Your task to perform on an android device: open app "Truecaller" Image 0: 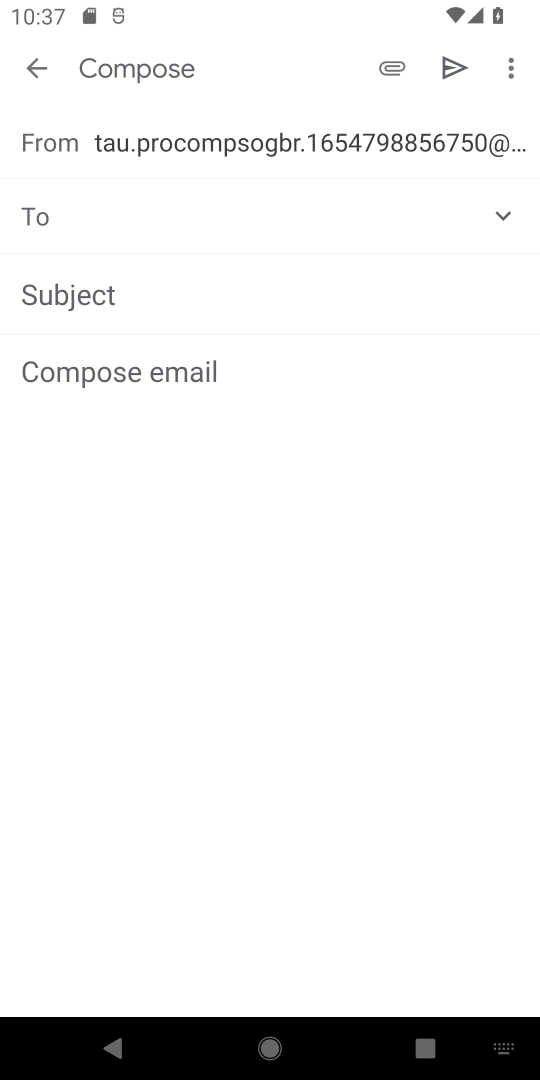
Step 0: press home button
Your task to perform on an android device: open app "Truecaller" Image 1: 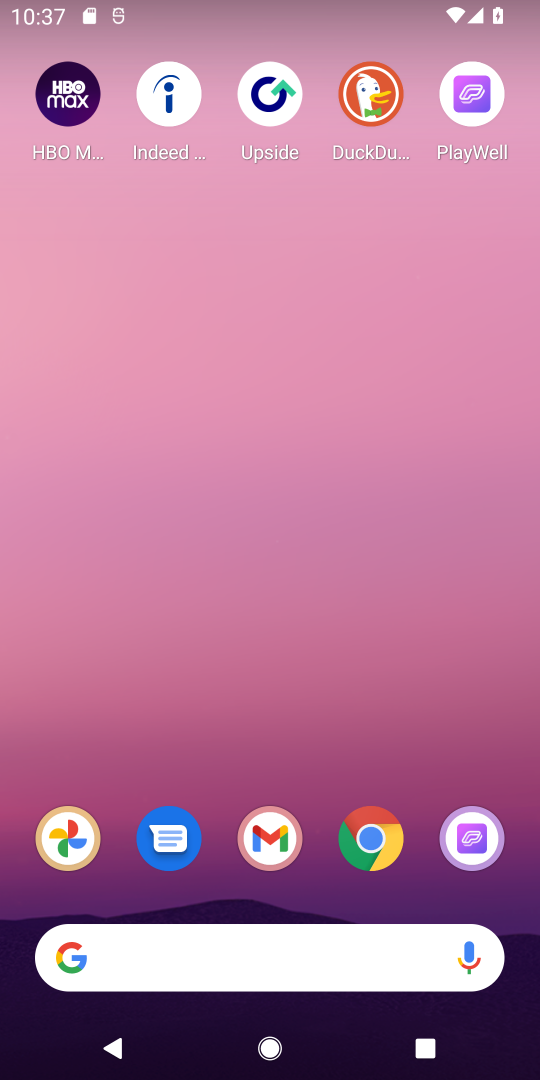
Step 1: press home button
Your task to perform on an android device: open app "Truecaller" Image 2: 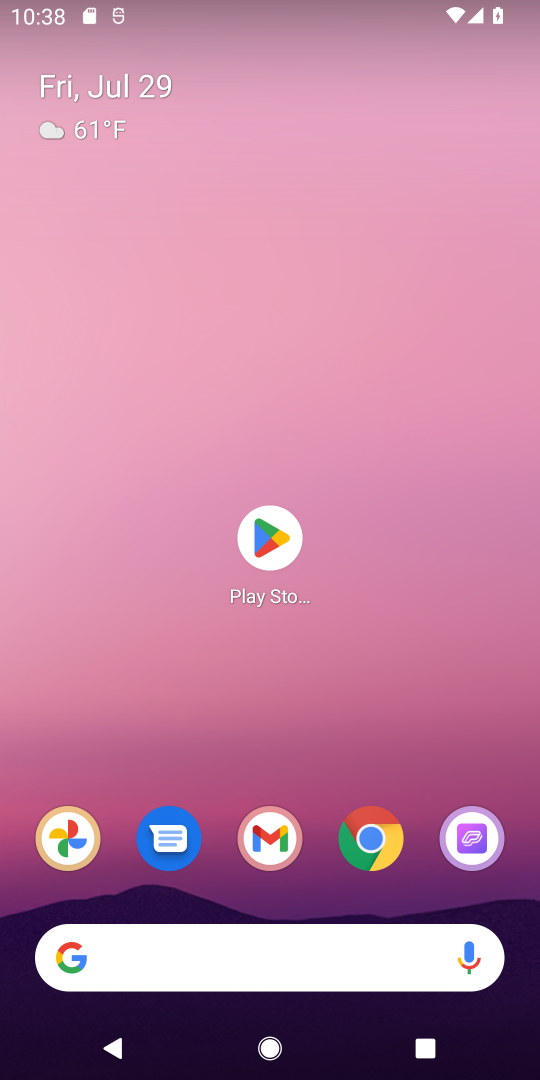
Step 2: click (262, 534)
Your task to perform on an android device: open app "Truecaller" Image 3: 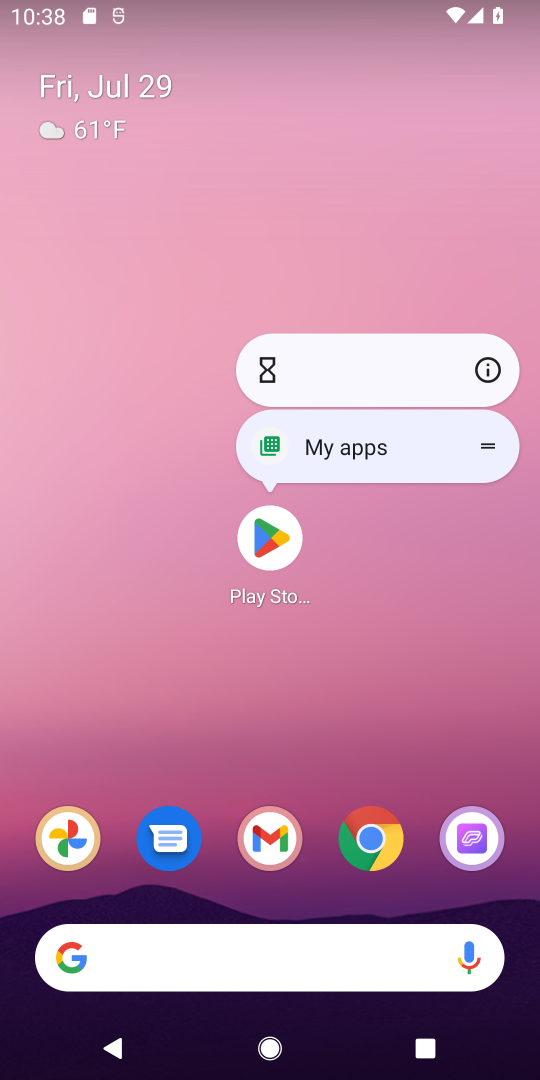
Step 3: click (270, 546)
Your task to perform on an android device: open app "Truecaller" Image 4: 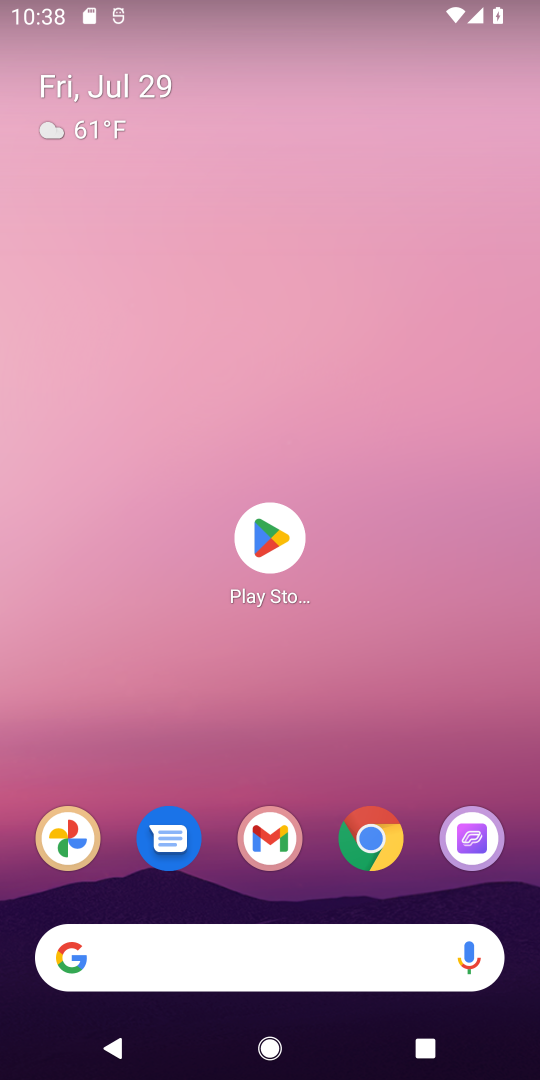
Step 4: click (270, 547)
Your task to perform on an android device: open app "Truecaller" Image 5: 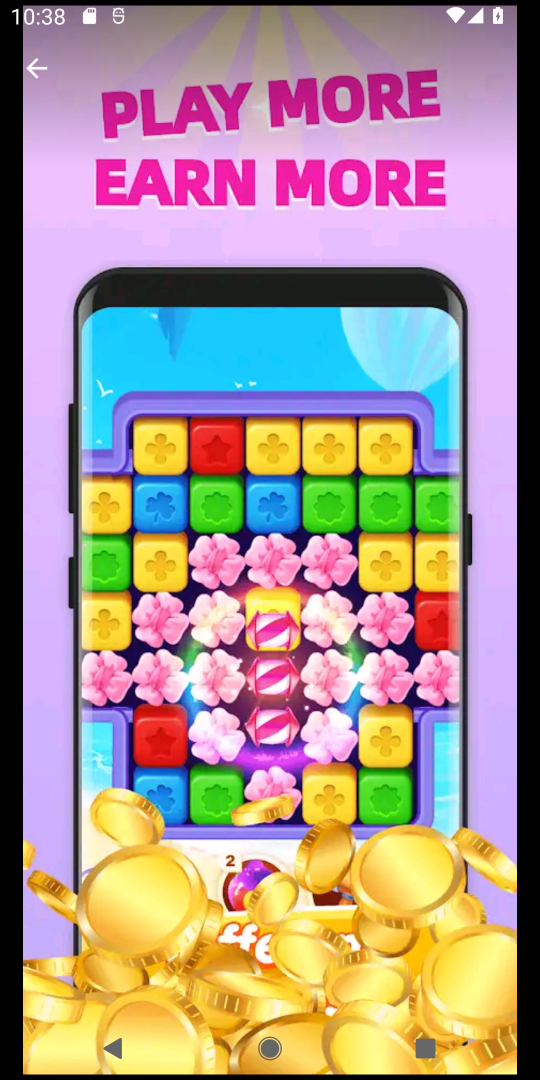
Step 5: press back button
Your task to perform on an android device: open app "Truecaller" Image 6: 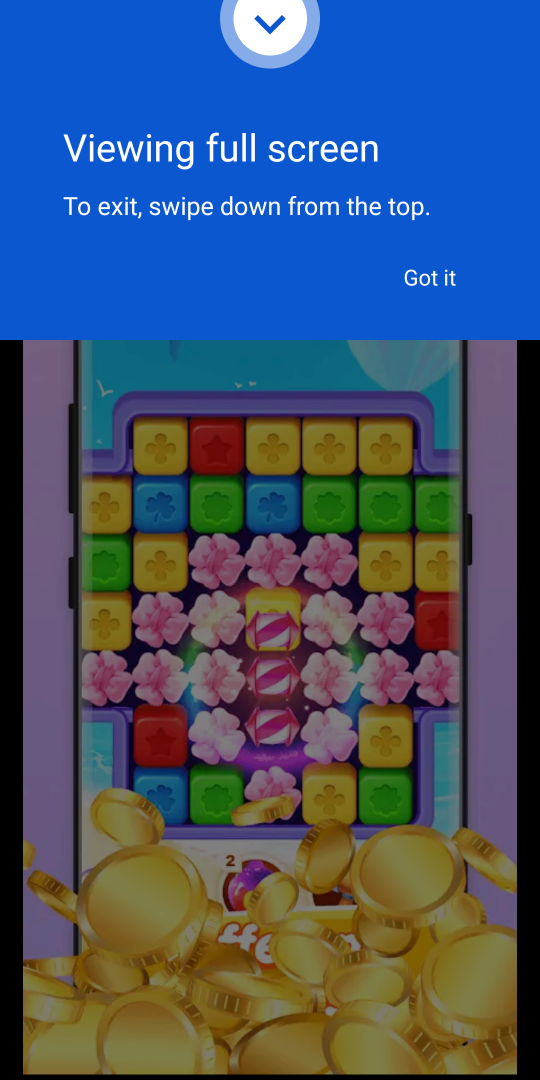
Step 6: click (431, 276)
Your task to perform on an android device: open app "Truecaller" Image 7: 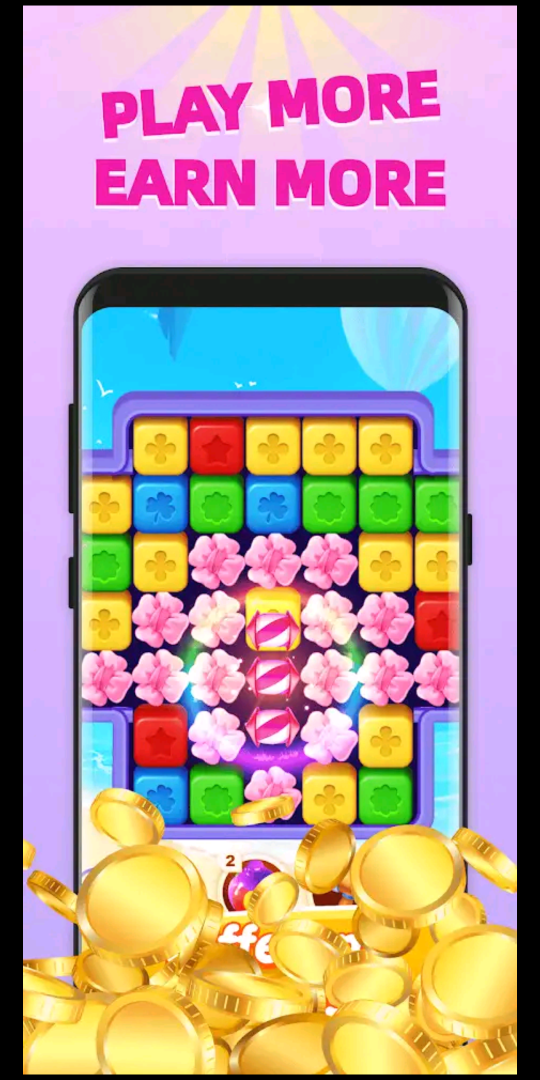
Step 7: click (49, 38)
Your task to perform on an android device: open app "Truecaller" Image 8: 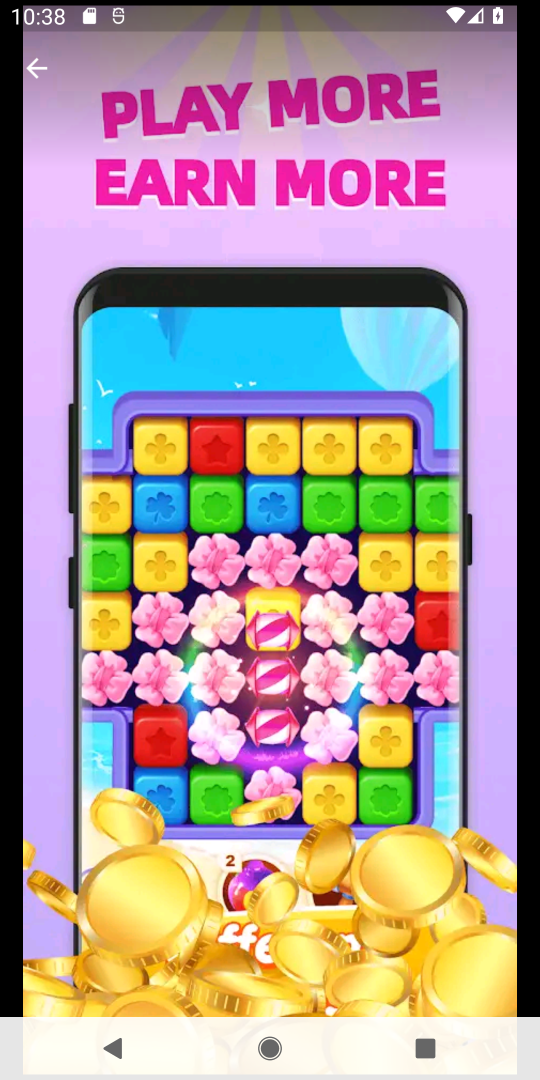
Step 8: click (42, 61)
Your task to perform on an android device: open app "Truecaller" Image 9: 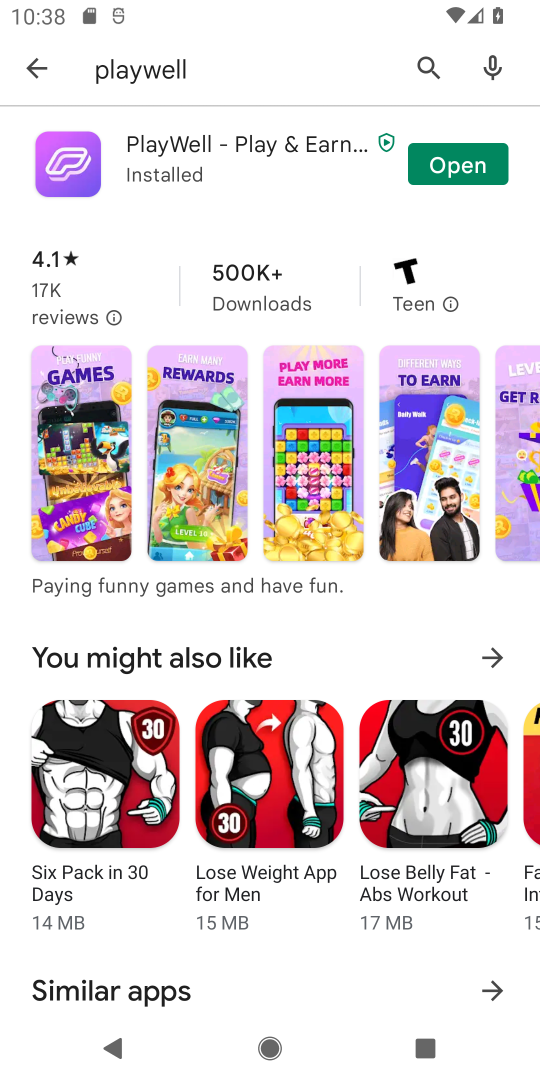
Step 9: click (424, 63)
Your task to perform on an android device: open app "Truecaller" Image 10: 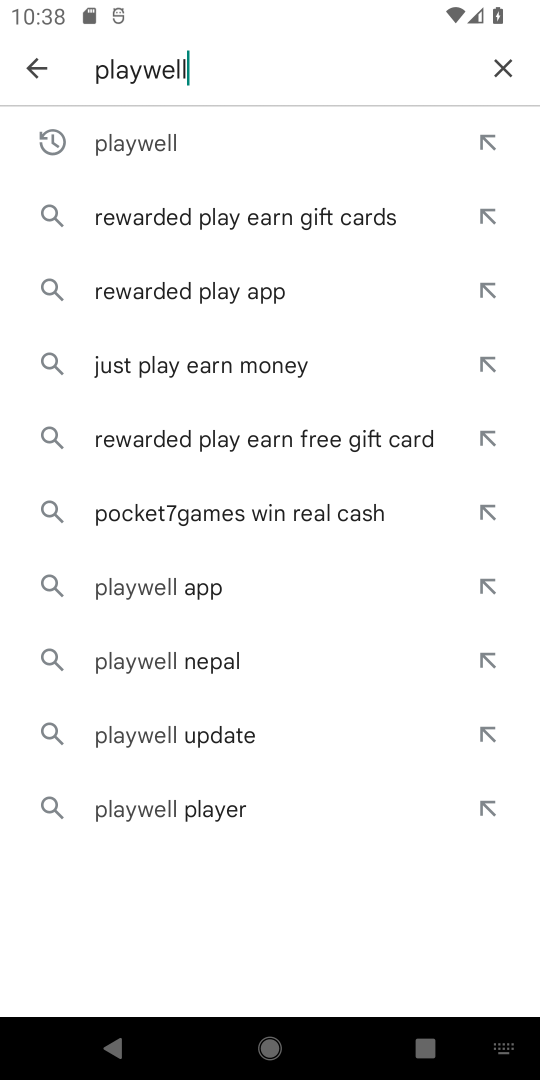
Step 10: click (507, 67)
Your task to perform on an android device: open app "Truecaller" Image 11: 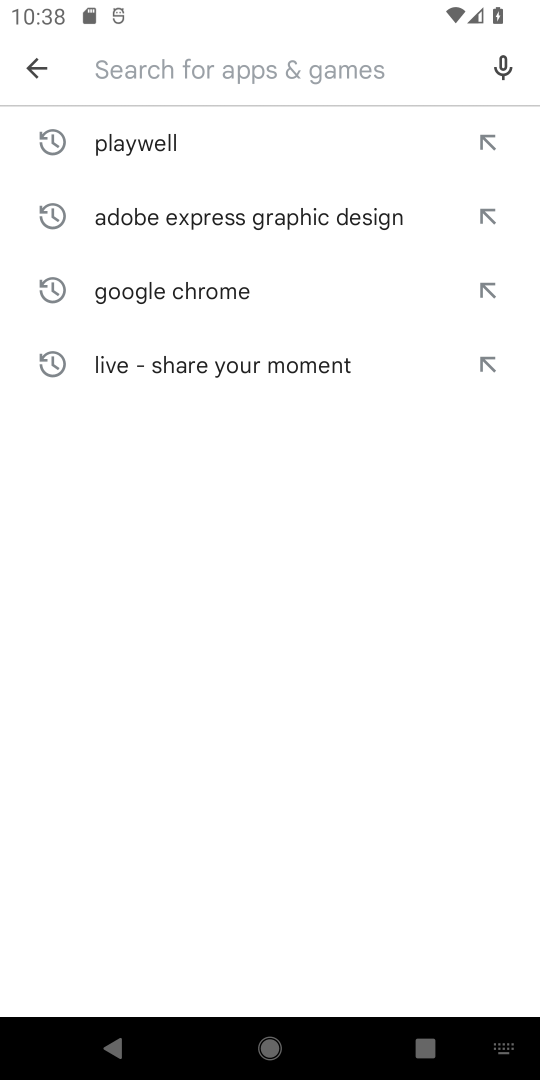
Step 11: type "Truecaller"
Your task to perform on an android device: open app "Truecaller" Image 12: 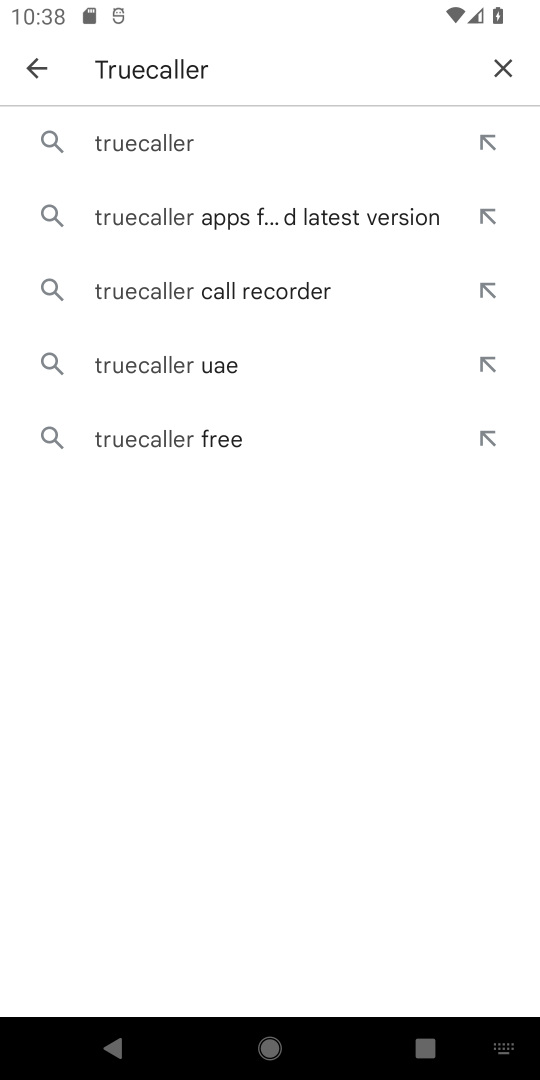
Step 12: click (177, 141)
Your task to perform on an android device: open app "Truecaller" Image 13: 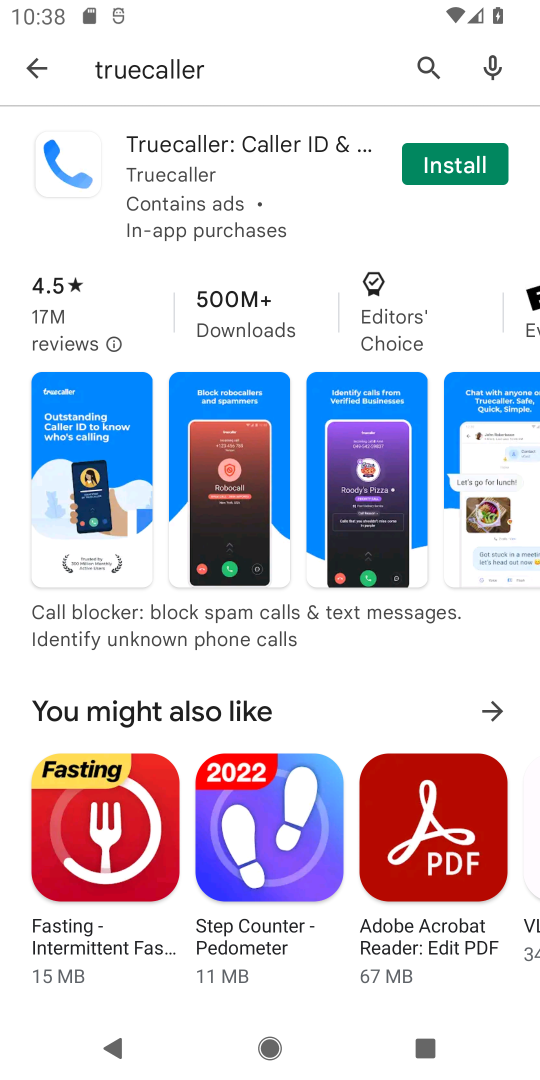
Step 13: task complete